Your task to perform on an android device: Add "alienware aurora" to the cart on costco Image 0: 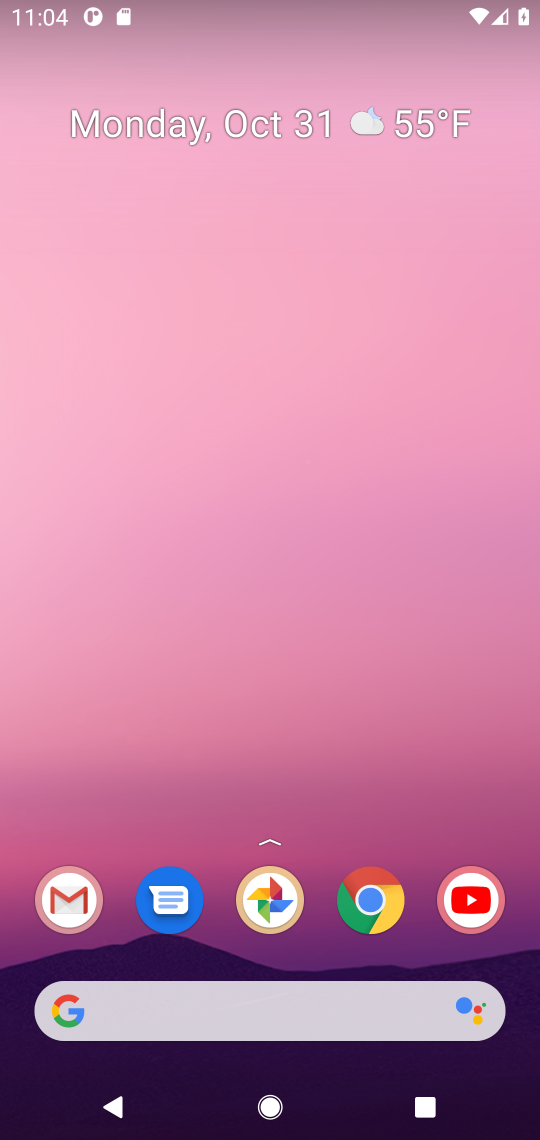
Step 0: click (374, 917)
Your task to perform on an android device: Add "alienware aurora" to the cart on costco Image 1: 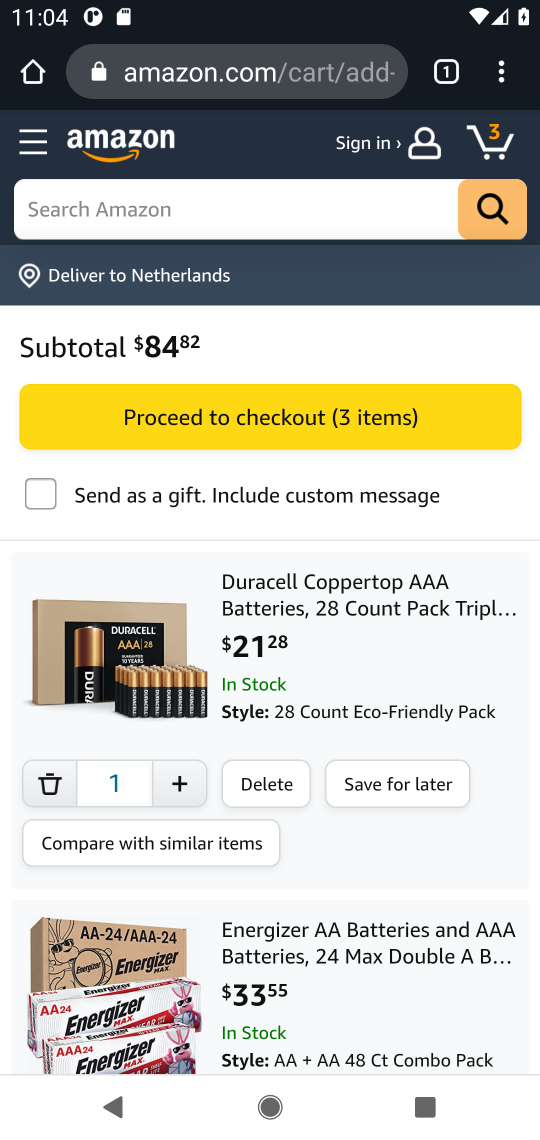
Step 1: click (253, 80)
Your task to perform on an android device: Add "alienware aurora" to the cart on costco Image 2: 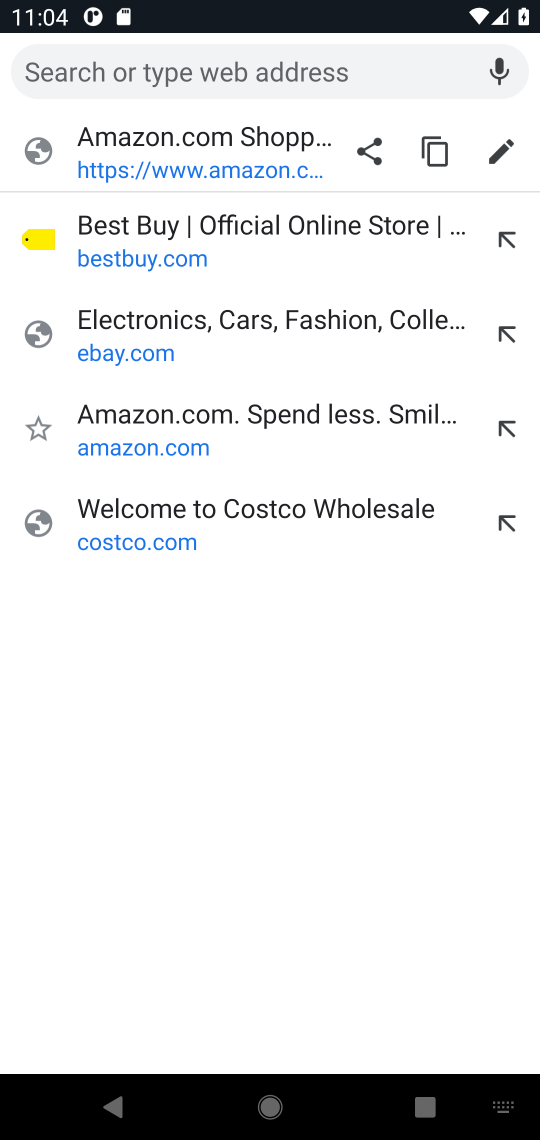
Step 2: click (146, 545)
Your task to perform on an android device: Add "alienware aurora" to the cart on costco Image 3: 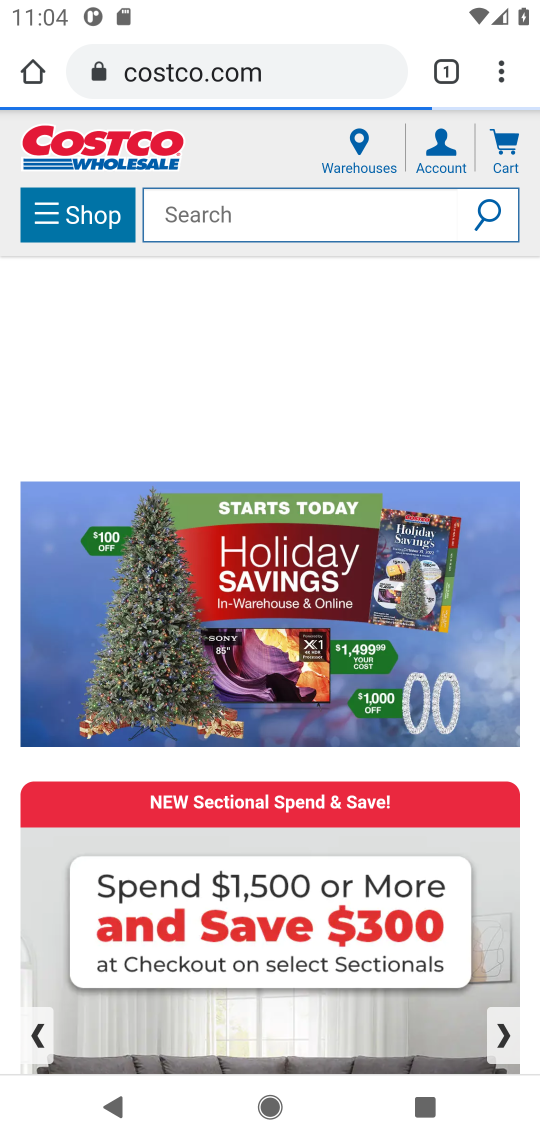
Step 3: click (213, 218)
Your task to perform on an android device: Add "alienware aurora" to the cart on costco Image 4: 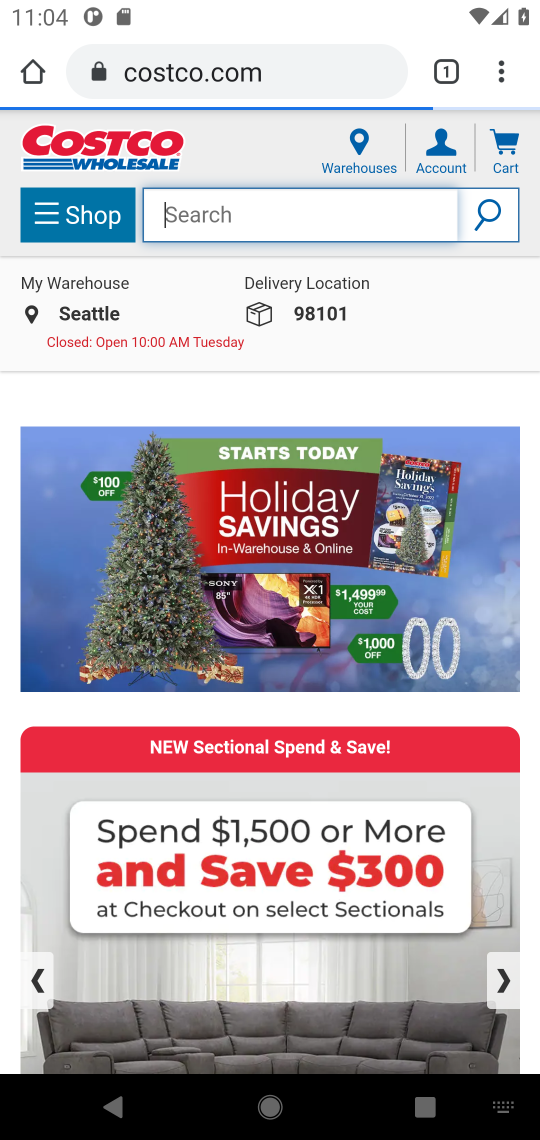
Step 4: type "alienware aurora"
Your task to perform on an android device: Add "alienware aurora" to the cart on costco Image 5: 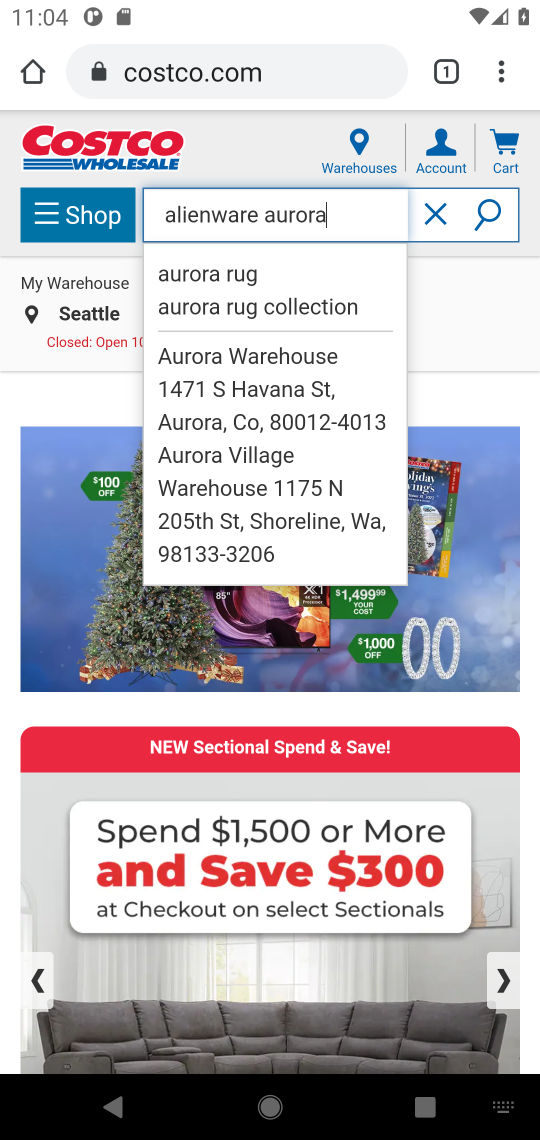
Step 5: click (486, 212)
Your task to perform on an android device: Add "alienware aurora" to the cart on costco Image 6: 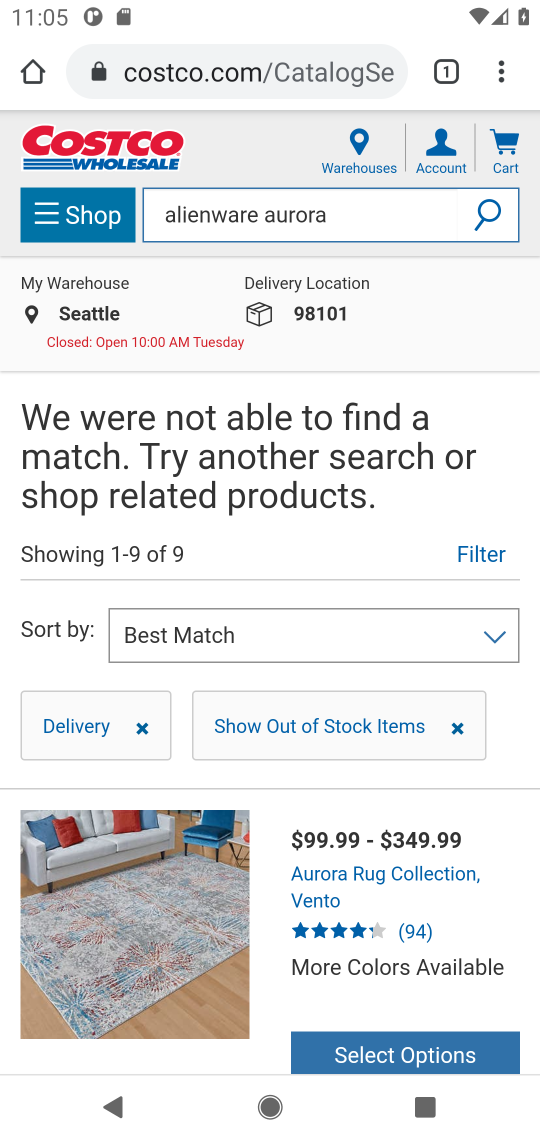
Step 6: task complete